Your task to perform on an android device: turn on priority inbox in the gmail app Image 0: 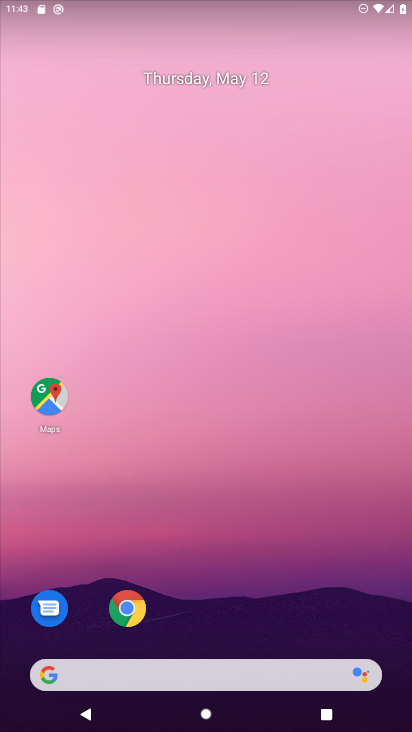
Step 0: drag from (252, 610) to (230, 50)
Your task to perform on an android device: turn on priority inbox in the gmail app Image 1: 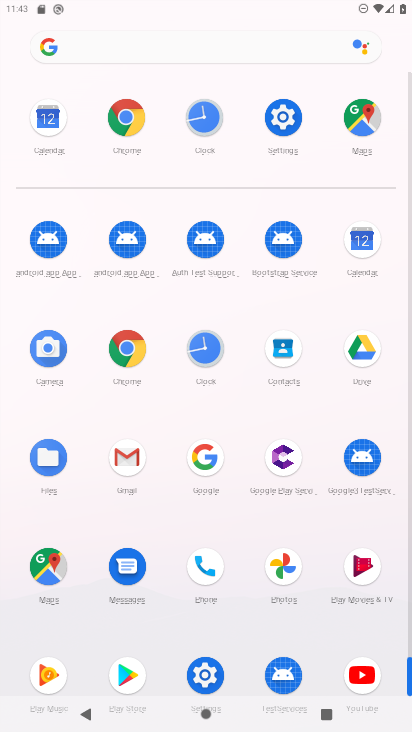
Step 1: click (132, 451)
Your task to perform on an android device: turn on priority inbox in the gmail app Image 2: 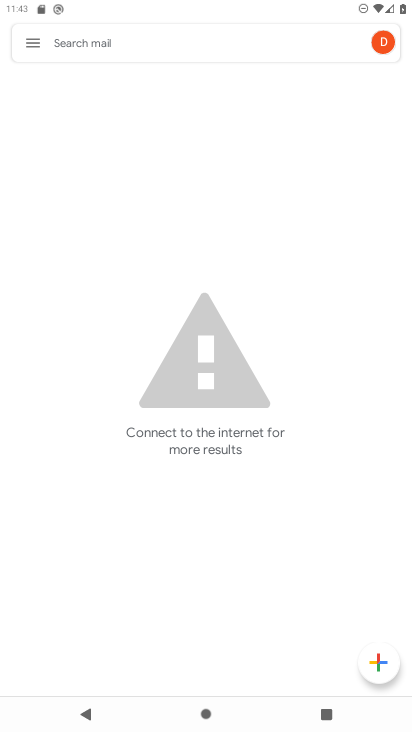
Step 2: click (28, 40)
Your task to perform on an android device: turn on priority inbox in the gmail app Image 3: 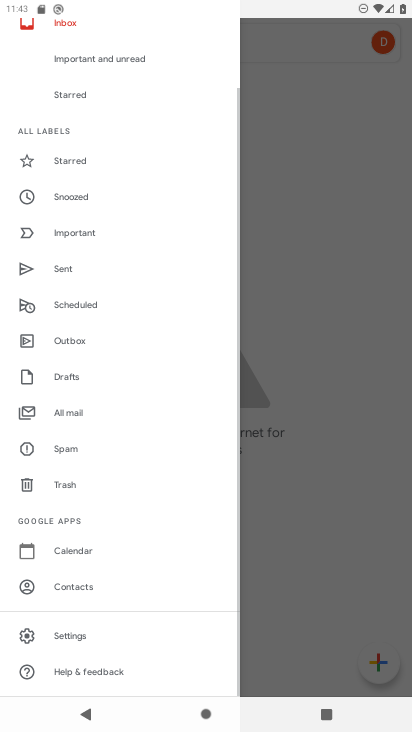
Step 3: click (84, 642)
Your task to perform on an android device: turn on priority inbox in the gmail app Image 4: 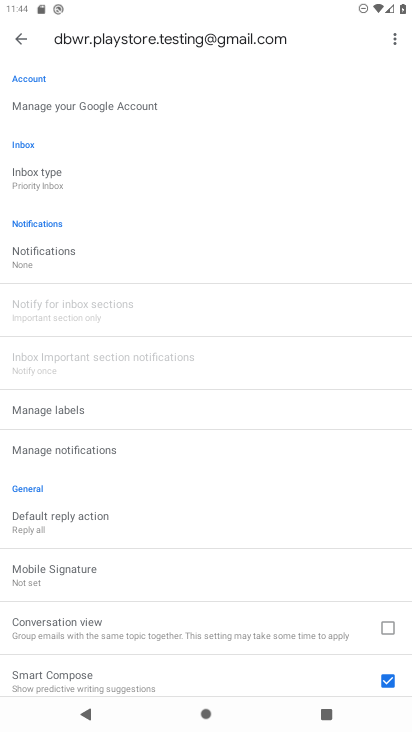
Step 4: task complete